Your task to perform on an android device: Check the news Image 0: 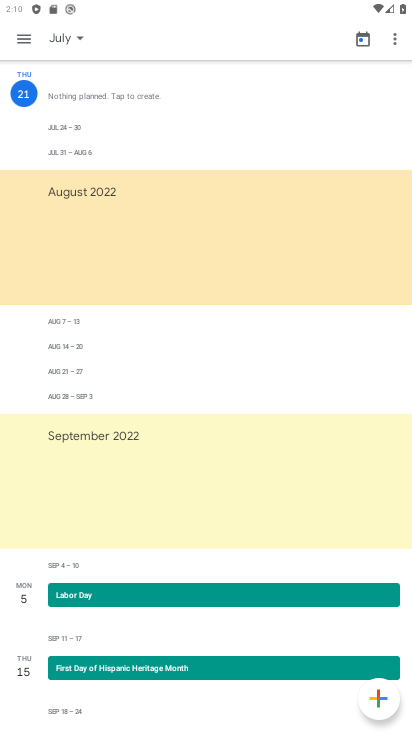
Step 0: press home button
Your task to perform on an android device: Check the news Image 1: 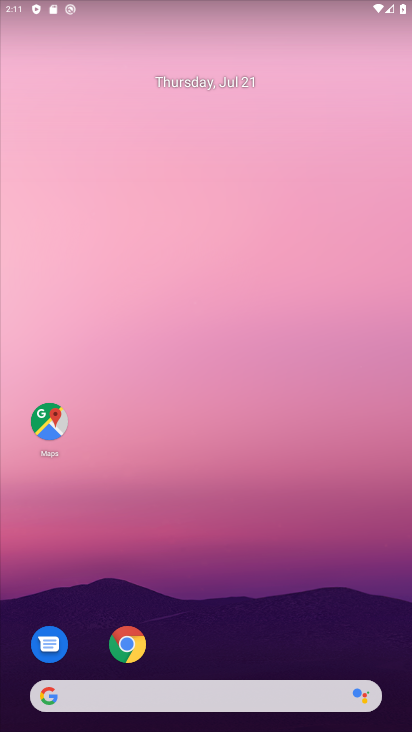
Step 1: drag from (249, 659) to (188, 164)
Your task to perform on an android device: Check the news Image 2: 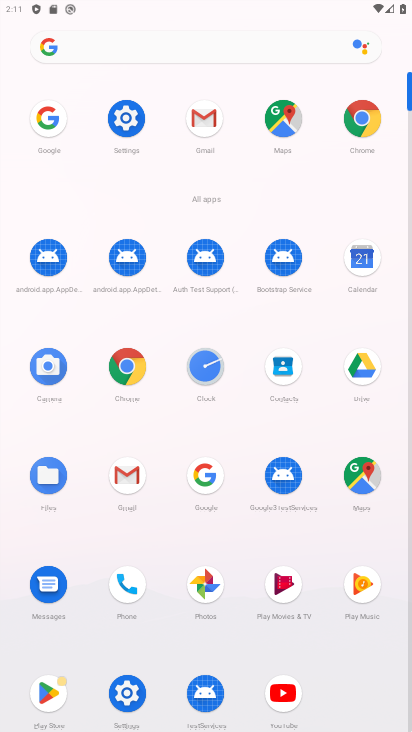
Step 2: click (360, 110)
Your task to perform on an android device: Check the news Image 3: 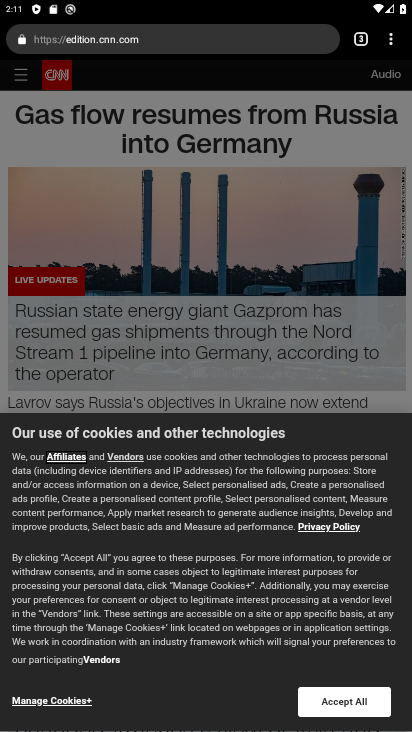
Step 3: click (176, 34)
Your task to perform on an android device: Check the news Image 4: 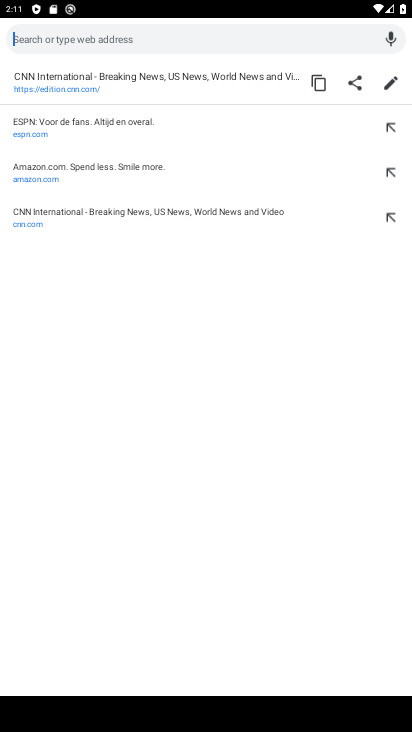
Step 4: type "Check the news"
Your task to perform on an android device: Check the news Image 5: 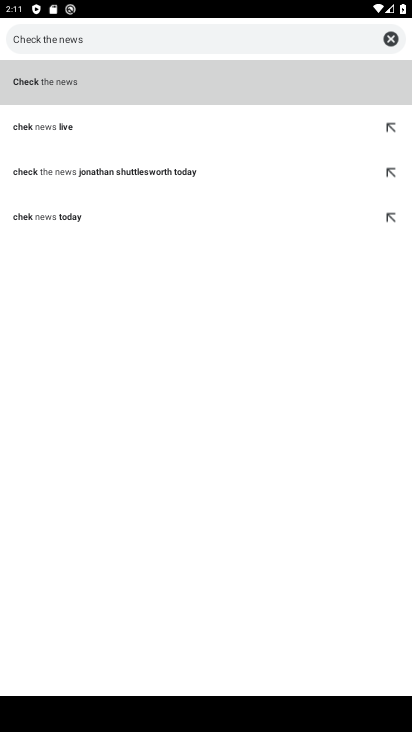
Step 5: click (87, 72)
Your task to perform on an android device: Check the news Image 6: 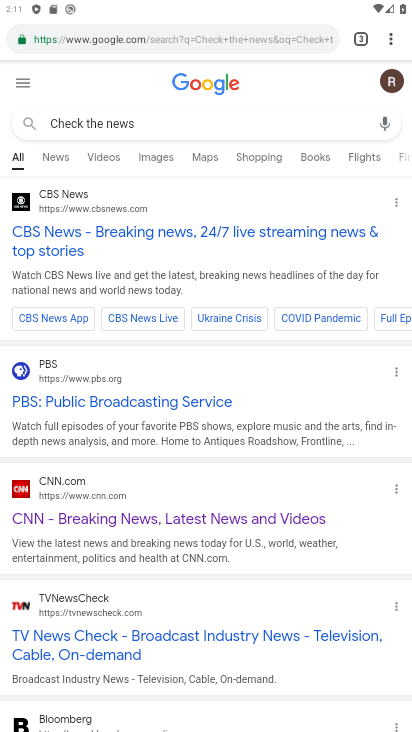
Step 6: click (110, 231)
Your task to perform on an android device: Check the news Image 7: 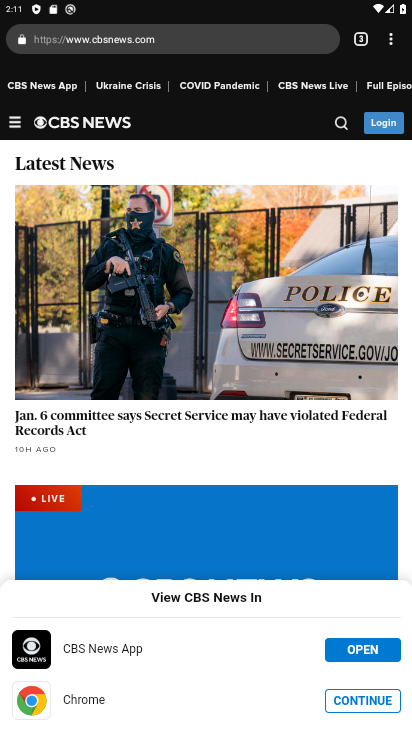
Step 7: task complete